Your task to perform on an android device: add a contact in the contacts app Image 0: 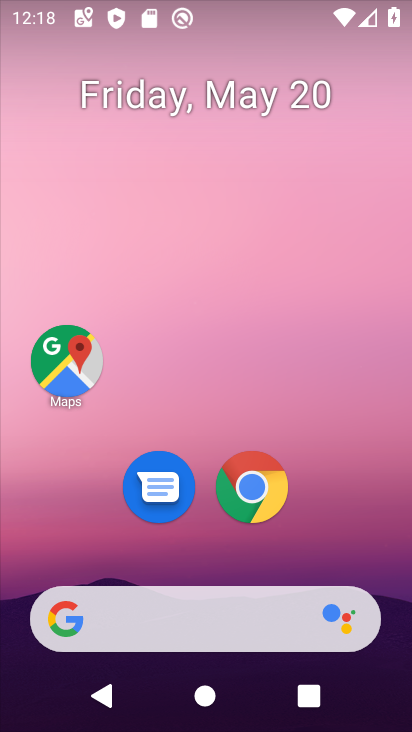
Step 0: drag from (174, 554) to (248, 44)
Your task to perform on an android device: add a contact in the contacts app Image 1: 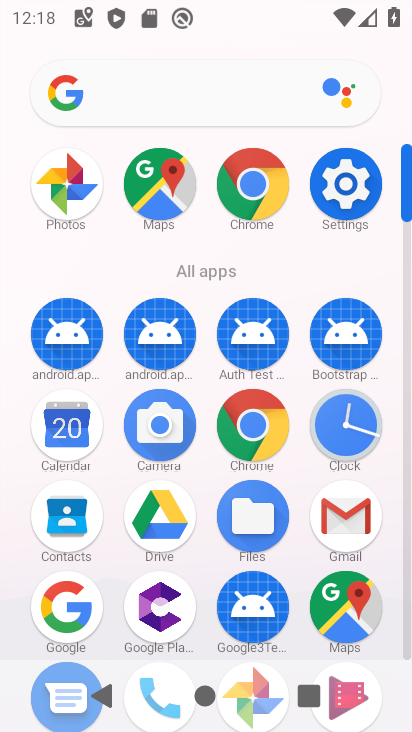
Step 1: click (76, 541)
Your task to perform on an android device: add a contact in the contacts app Image 2: 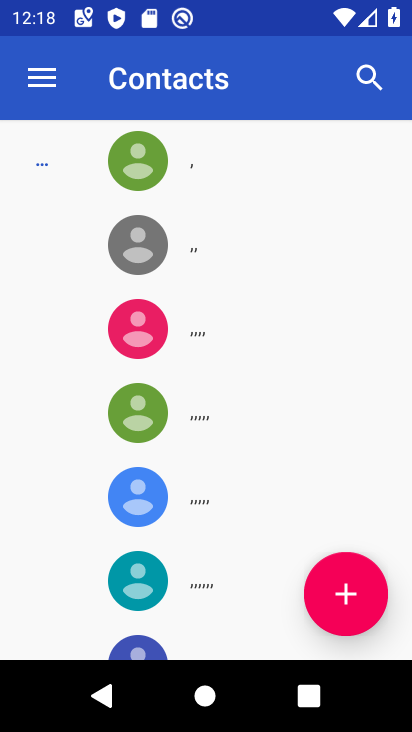
Step 2: click (354, 594)
Your task to perform on an android device: add a contact in the contacts app Image 3: 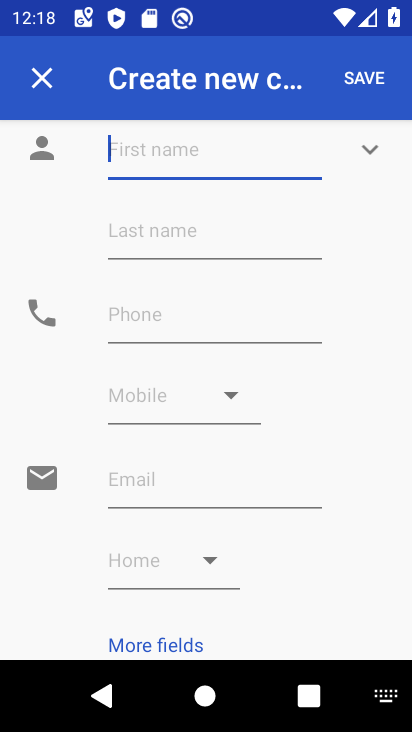
Step 3: type "fgbg"
Your task to perform on an android device: add a contact in the contacts app Image 4: 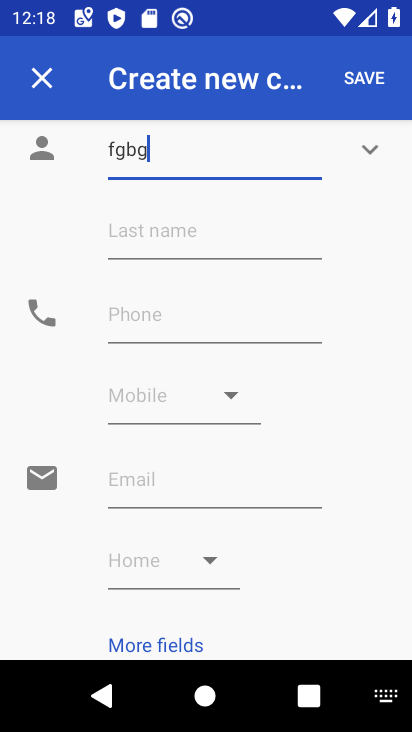
Step 4: click (161, 321)
Your task to perform on an android device: add a contact in the contacts app Image 5: 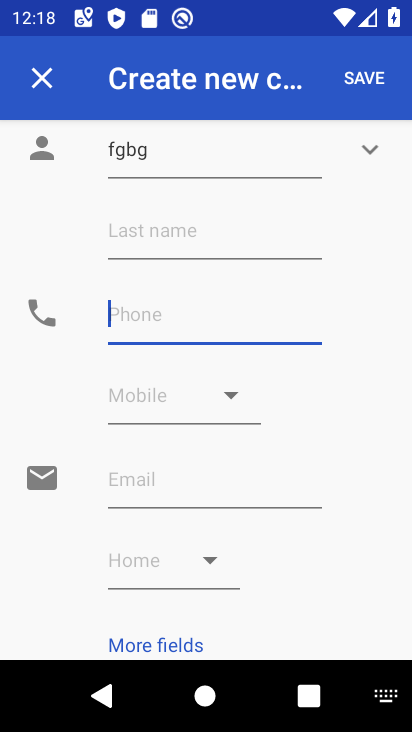
Step 5: type "878686"
Your task to perform on an android device: add a contact in the contacts app Image 6: 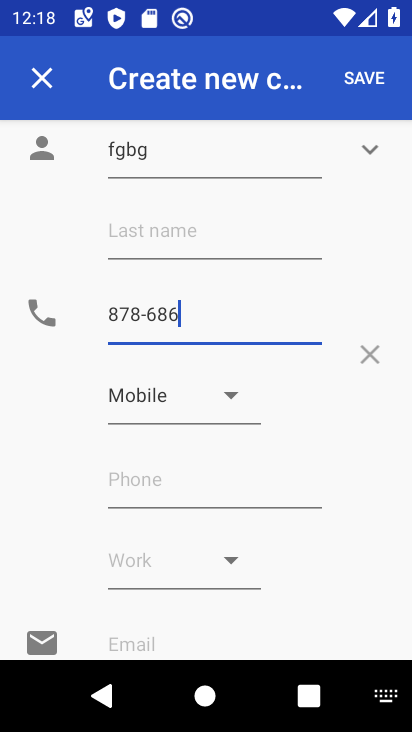
Step 6: click (376, 70)
Your task to perform on an android device: add a contact in the contacts app Image 7: 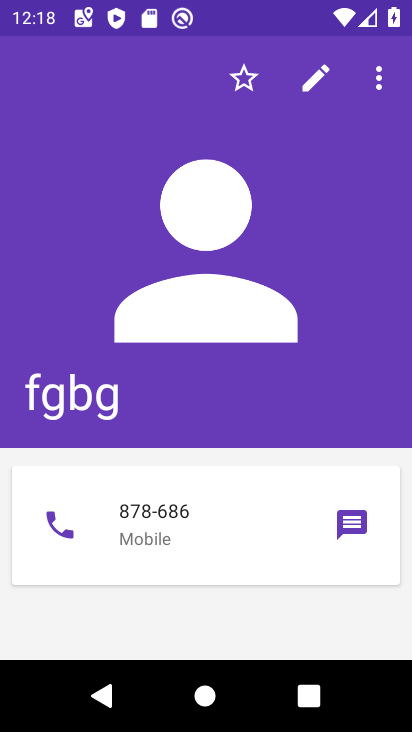
Step 7: task complete